Your task to perform on an android device: What's the weather today? Image 0: 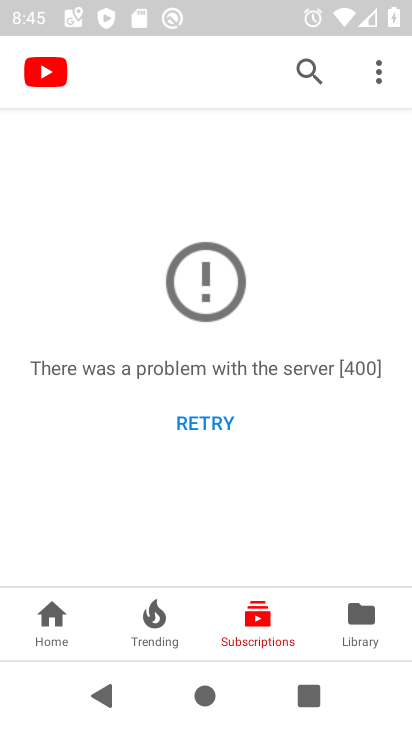
Step 0: press home button
Your task to perform on an android device: What's the weather today? Image 1: 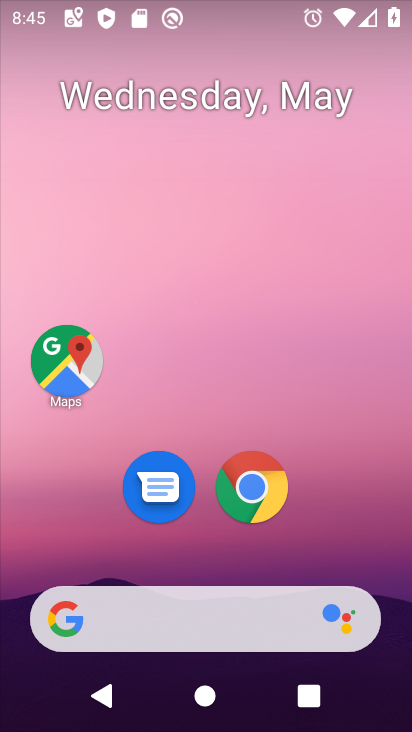
Step 1: drag from (19, 216) to (411, 221)
Your task to perform on an android device: What's the weather today? Image 2: 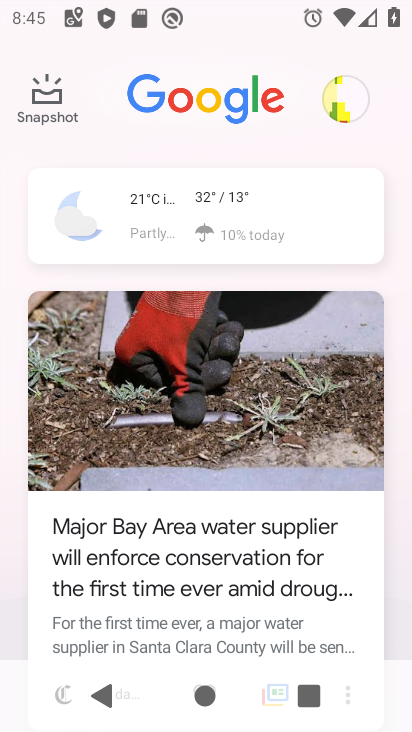
Step 2: click (252, 210)
Your task to perform on an android device: What's the weather today? Image 3: 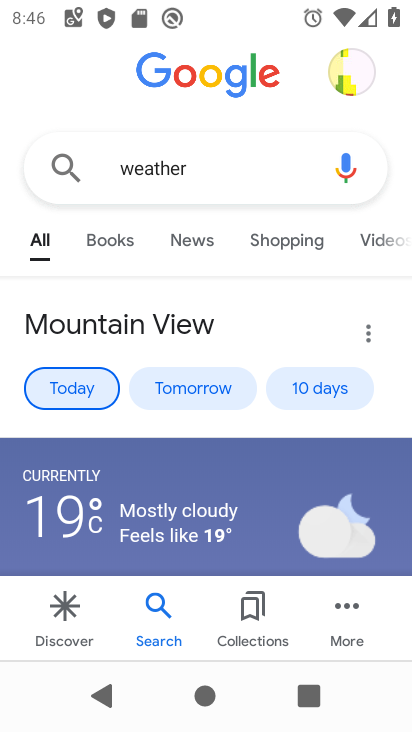
Step 3: task complete